Your task to perform on an android device: Go to location settings Image 0: 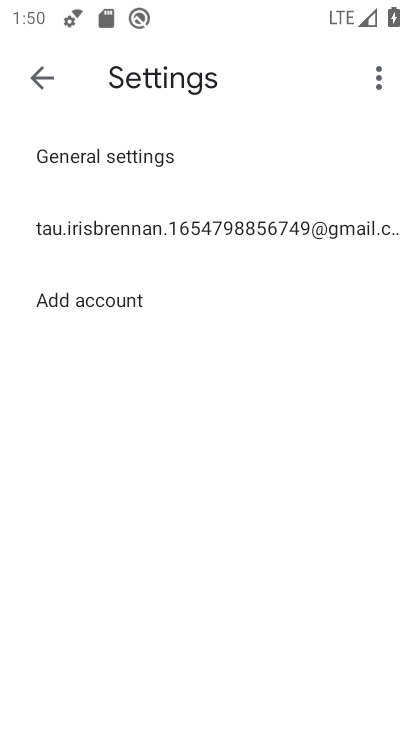
Step 0: press home button
Your task to perform on an android device: Go to location settings Image 1: 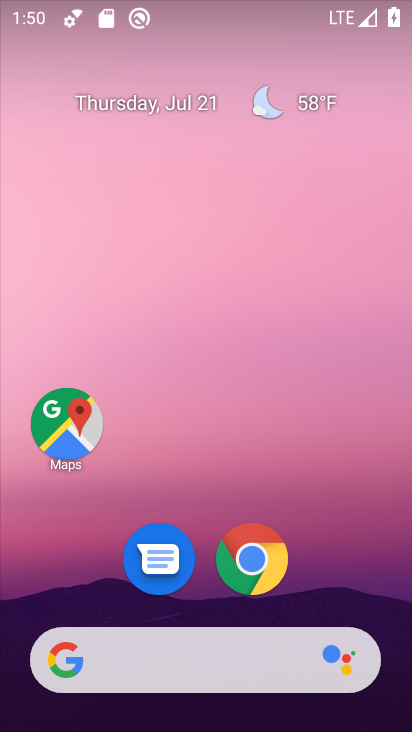
Step 1: drag from (351, 557) to (366, 84)
Your task to perform on an android device: Go to location settings Image 2: 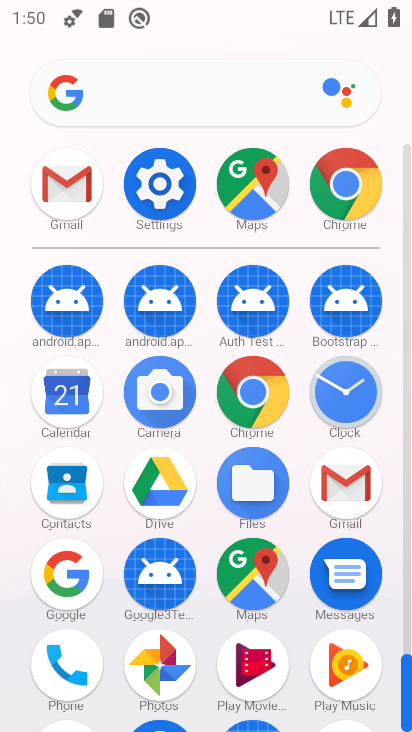
Step 2: click (169, 198)
Your task to perform on an android device: Go to location settings Image 3: 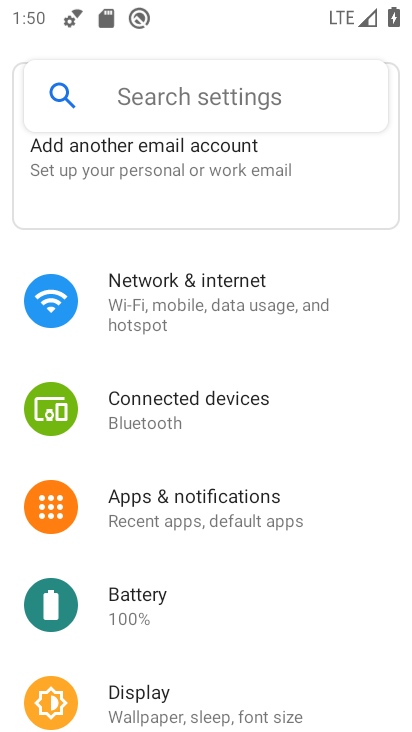
Step 3: drag from (347, 501) to (352, 383)
Your task to perform on an android device: Go to location settings Image 4: 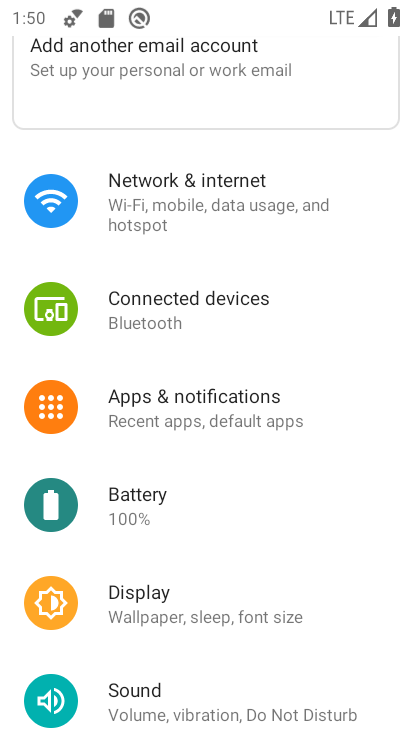
Step 4: drag from (360, 519) to (355, 384)
Your task to perform on an android device: Go to location settings Image 5: 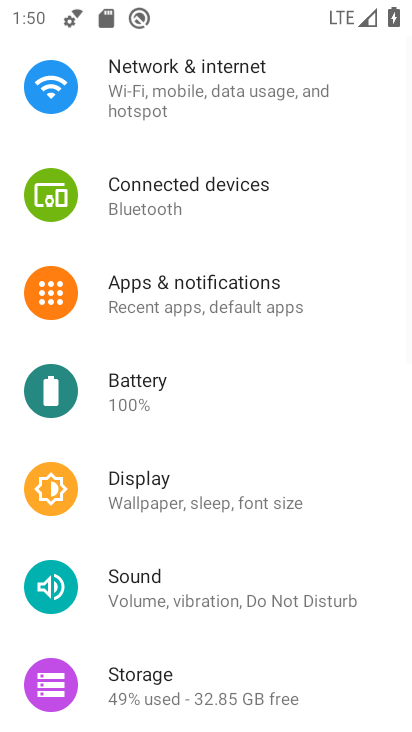
Step 5: drag from (352, 540) to (349, 369)
Your task to perform on an android device: Go to location settings Image 6: 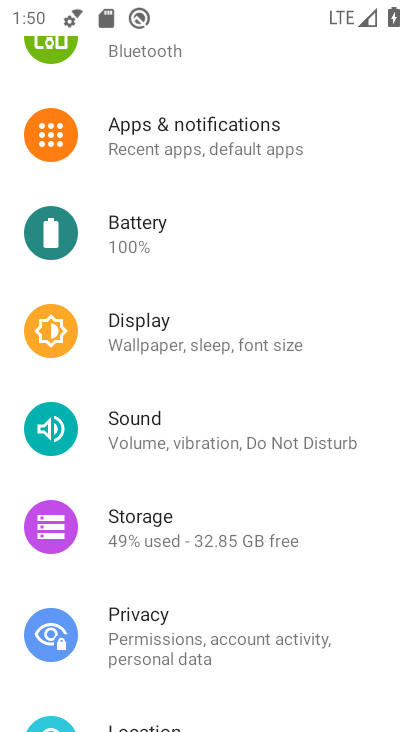
Step 6: drag from (361, 547) to (363, 394)
Your task to perform on an android device: Go to location settings Image 7: 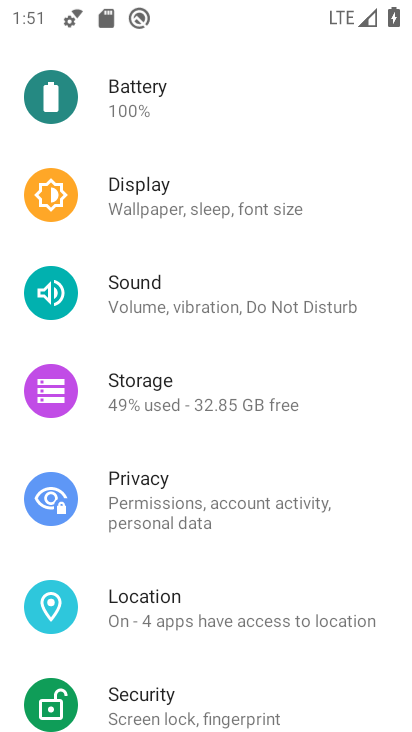
Step 7: drag from (364, 560) to (367, 378)
Your task to perform on an android device: Go to location settings Image 8: 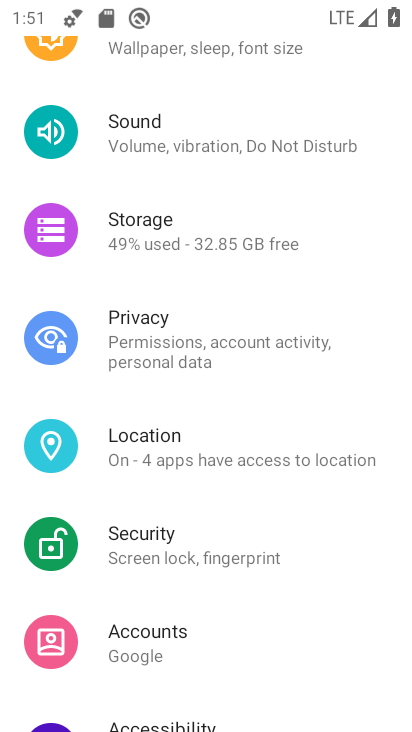
Step 8: drag from (375, 572) to (377, 453)
Your task to perform on an android device: Go to location settings Image 9: 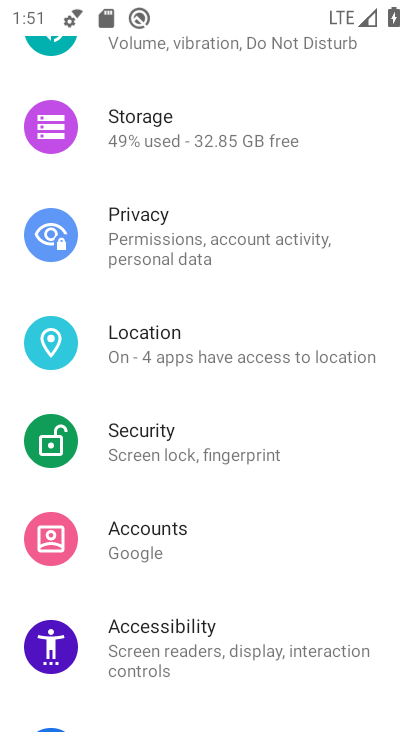
Step 9: drag from (353, 561) to (349, 400)
Your task to perform on an android device: Go to location settings Image 10: 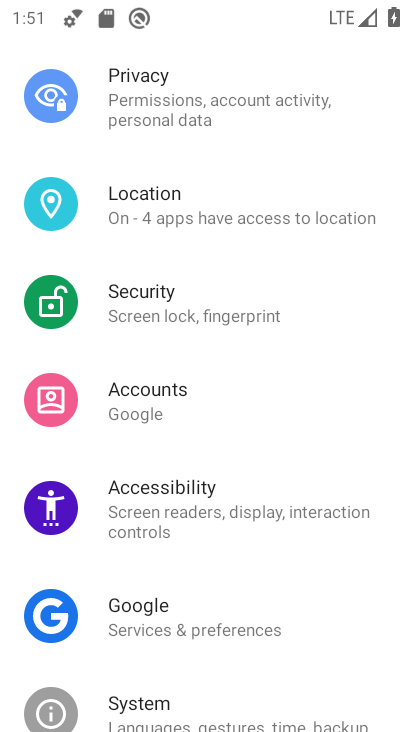
Step 10: drag from (344, 292) to (353, 404)
Your task to perform on an android device: Go to location settings Image 11: 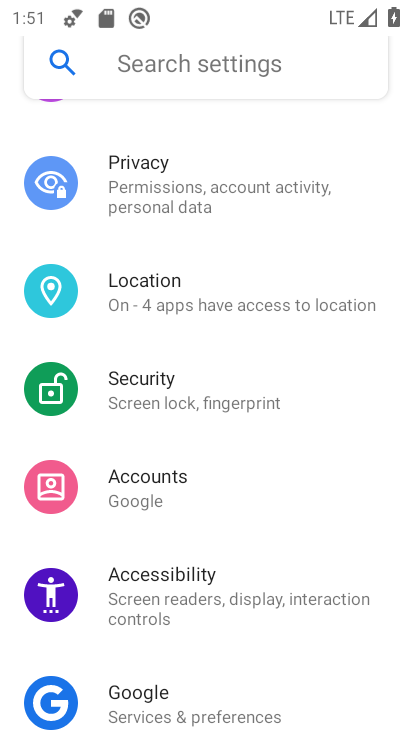
Step 11: drag from (356, 261) to (361, 401)
Your task to perform on an android device: Go to location settings Image 12: 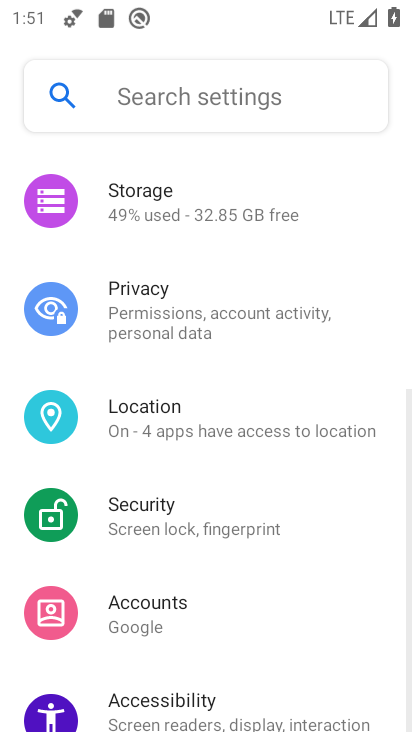
Step 12: click (327, 418)
Your task to perform on an android device: Go to location settings Image 13: 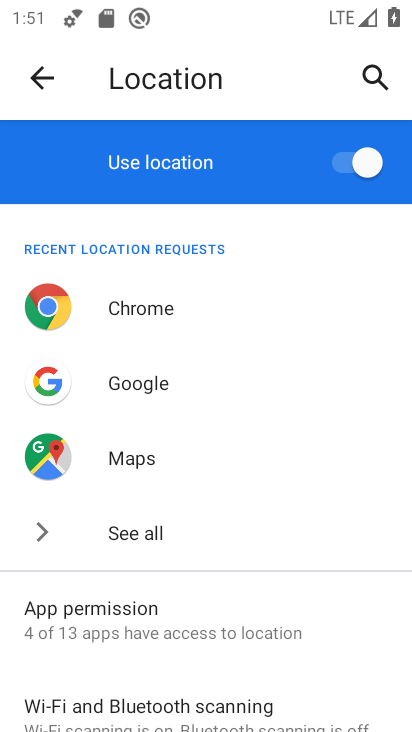
Step 13: task complete